Your task to perform on an android device: Open Reddit.com Image 0: 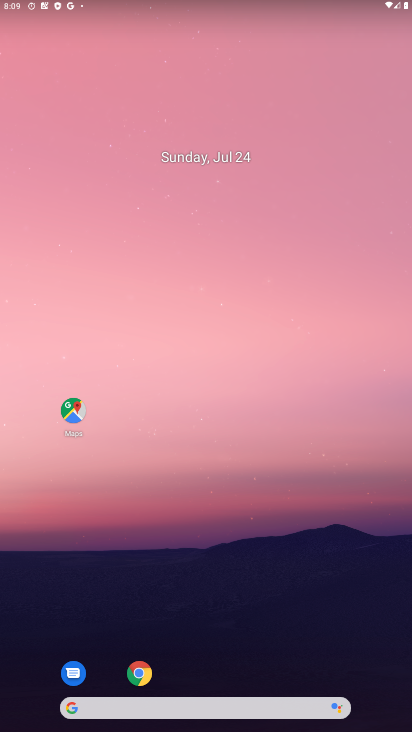
Step 0: click (96, 705)
Your task to perform on an android device: Open Reddit.com Image 1: 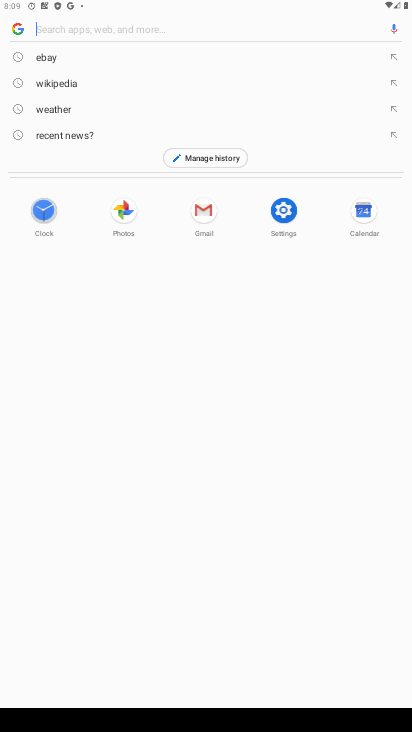
Step 1: type "Reddit.com"
Your task to perform on an android device: Open Reddit.com Image 2: 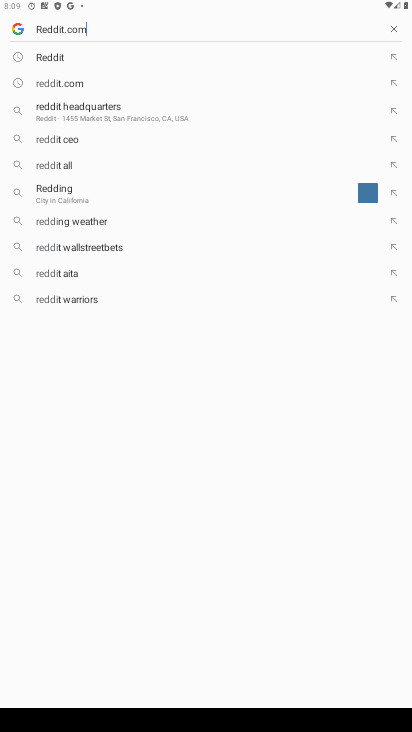
Step 2: type ""
Your task to perform on an android device: Open Reddit.com Image 3: 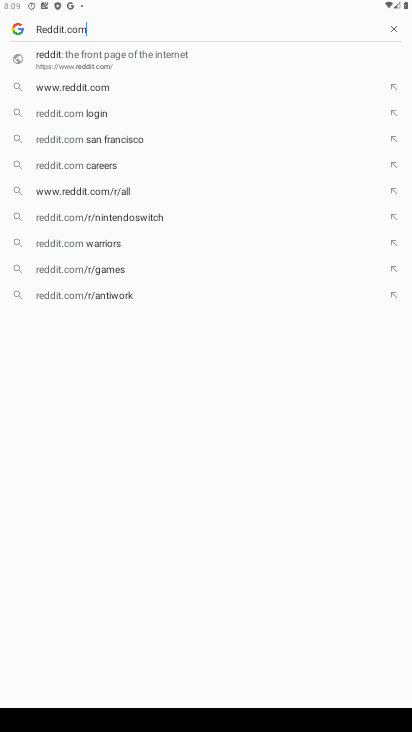
Step 3: type ""
Your task to perform on an android device: Open Reddit.com Image 4: 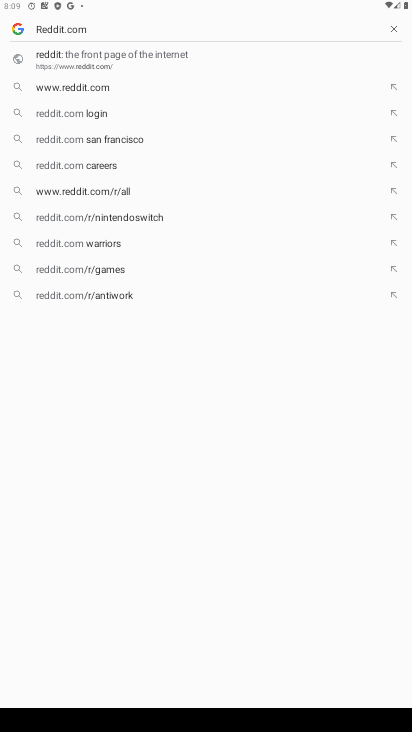
Step 4: type ""
Your task to perform on an android device: Open Reddit.com Image 5: 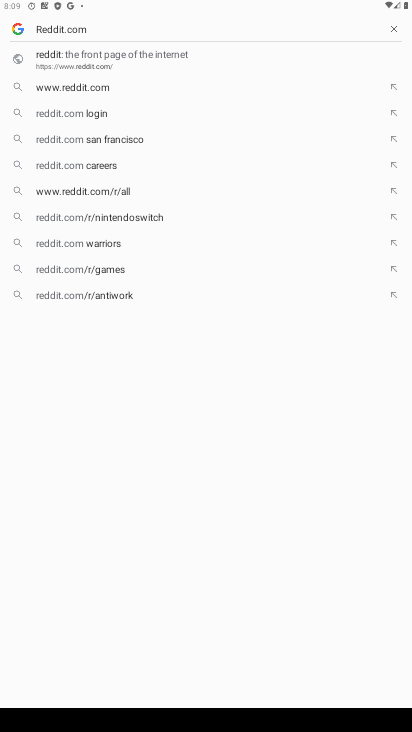
Step 5: click (62, 108)
Your task to perform on an android device: Open Reddit.com Image 6: 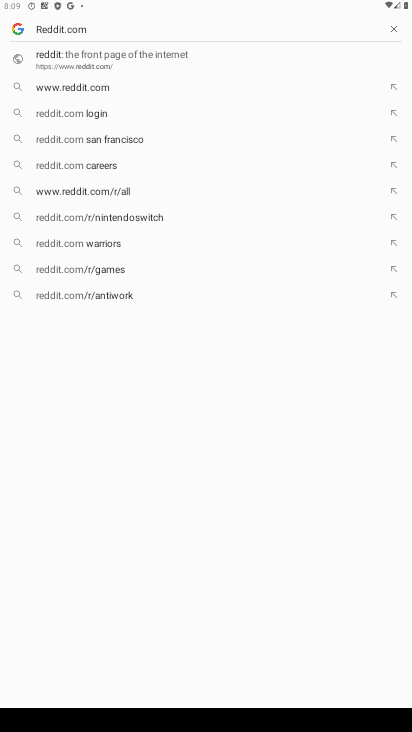
Step 6: click (54, 90)
Your task to perform on an android device: Open Reddit.com Image 7: 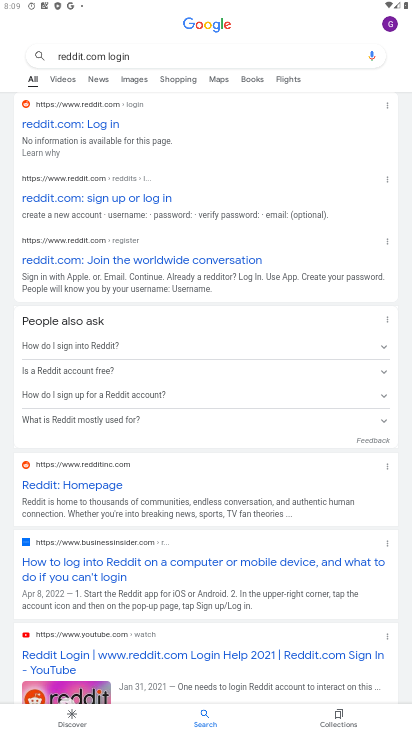
Step 7: task complete